Your task to perform on an android device: Open the web browser Image 0: 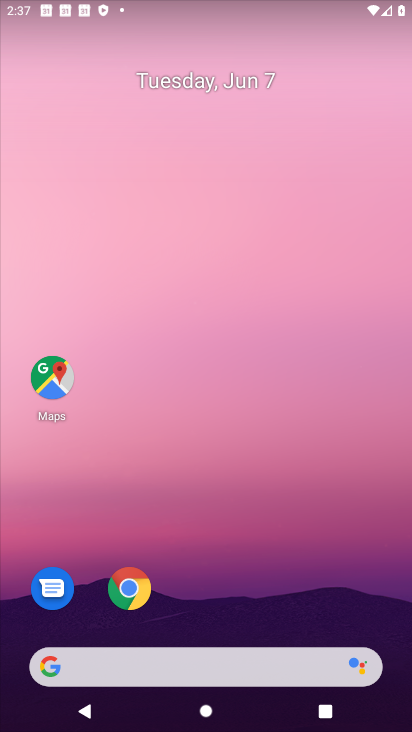
Step 0: task complete